Your task to perform on an android device: turn on javascript in the chrome app Image 0: 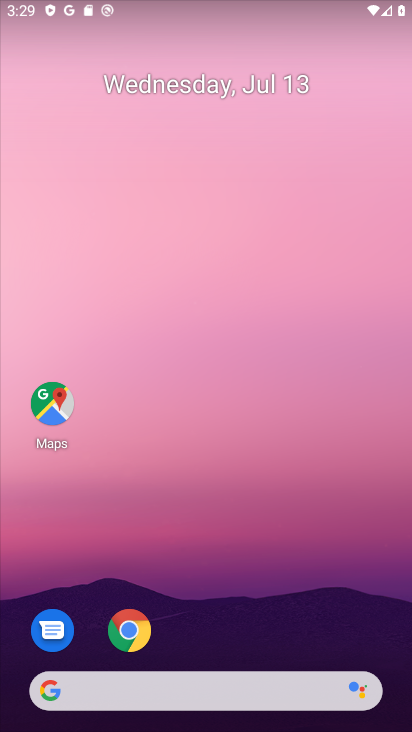
Step 0: click (131, 628)
Your task to perform on an android device: turn on javascript in the chrome app Image 1: 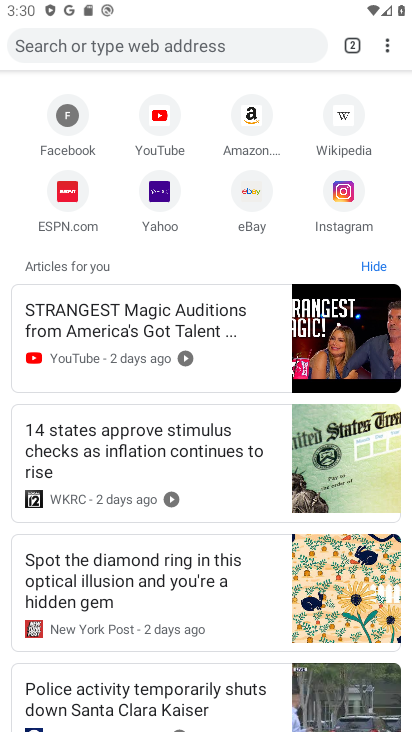
Step 1: click (388, 43)
Your task to perform on an android device: turn on javascript in the chrome app Image 2: 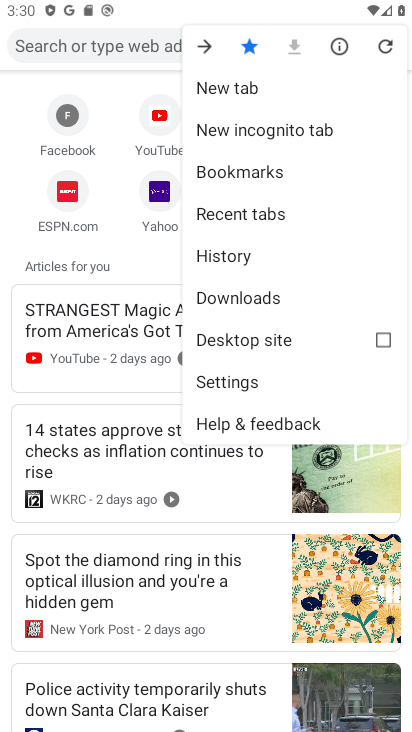
Step 2: click (229, 376)
Your task to perform on an android device: turn on javascript in the chrome app Image 3: 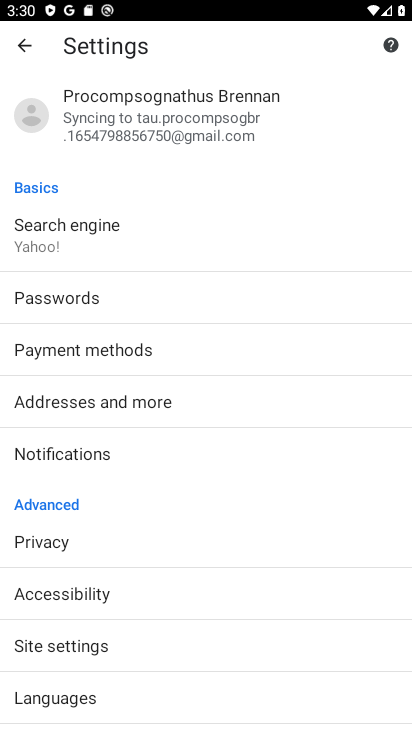
Step 3: click (148, 386)
Your task to perform on an android device: turn on javascript in the chrome app Image 4: 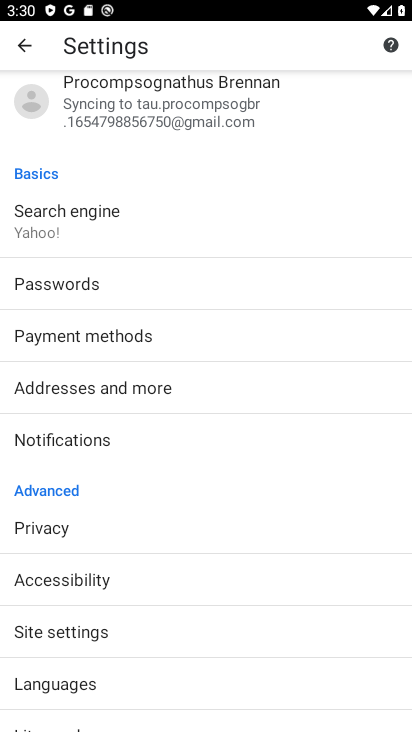
Step 4: click (76, 634)
Your task to perform on an android device: turn on javascript in the chrome app Image 5: 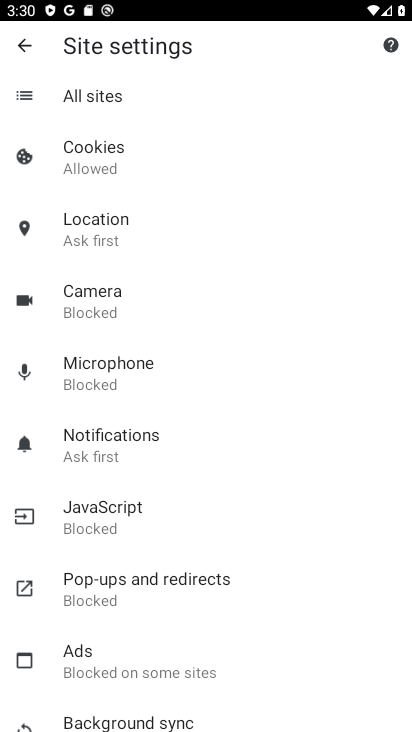
Step 5: click (127, 513)
Your task to perform on an android device: turn on javascript in the chrome app Image 6: 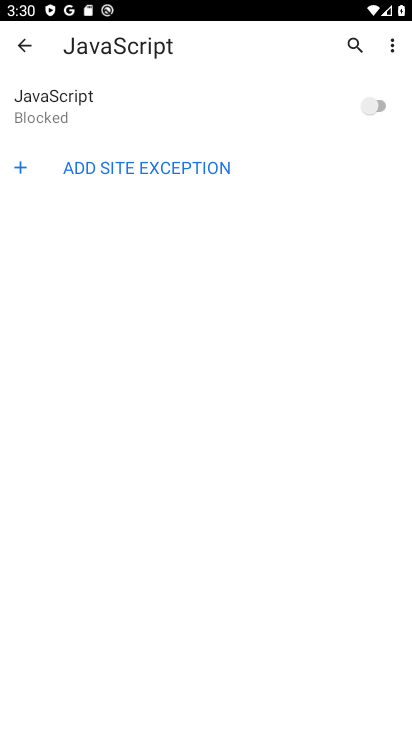
Step 6: click (379, 105)
Your task to perform on an android device: turn on javascript in the chrome app Image 7: 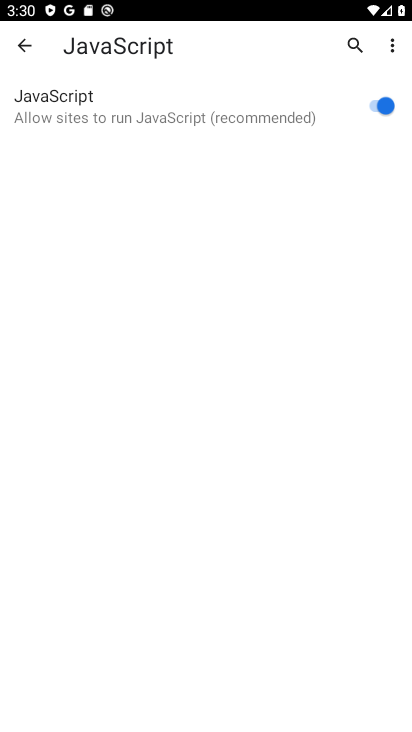
Step 7: task complete